Your task to perform on an android device: find which apps use the phone's location Image 0: 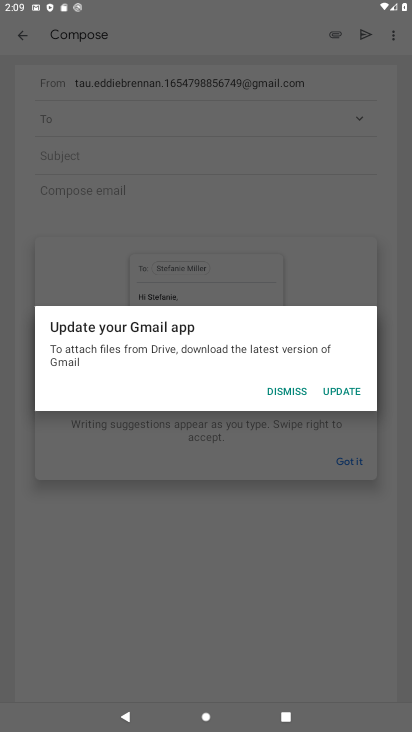
Step 0: press home button
Your task to perform on an android device: find which apps use the phone's location Image 1: 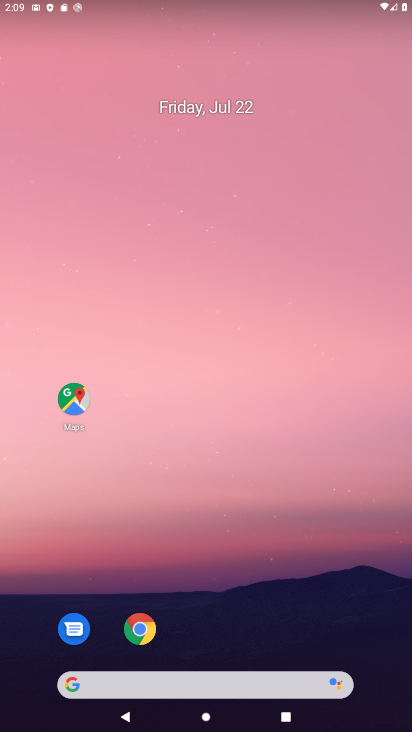
Step 1: drag from (190, 658) to (222, 267)
Your task to perform on an android device: find which apps use the phone's location Image 2: 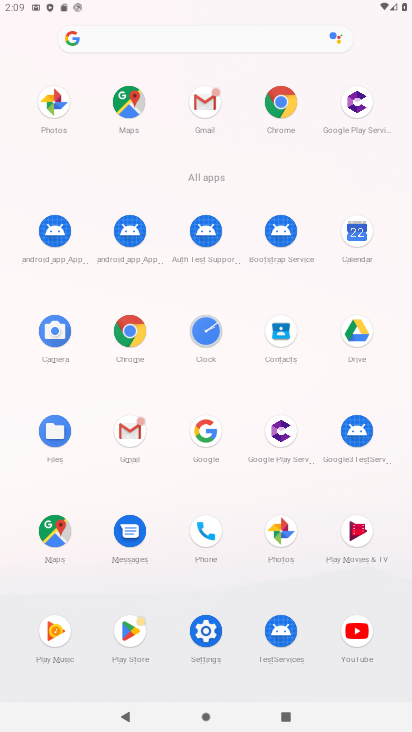
Step 2: click (204, 639)
Your task to perform on an android device: find which apps use the phone's location Image 3: 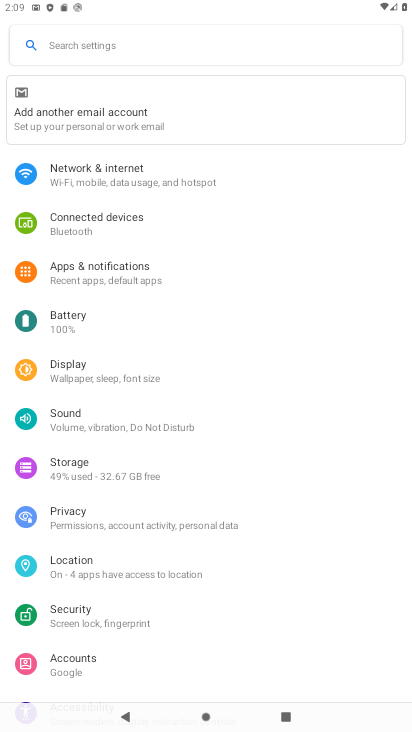
Step 3: click (78, 571)
Your task to perform on an android device: find which apps use the phone's location Image 4: 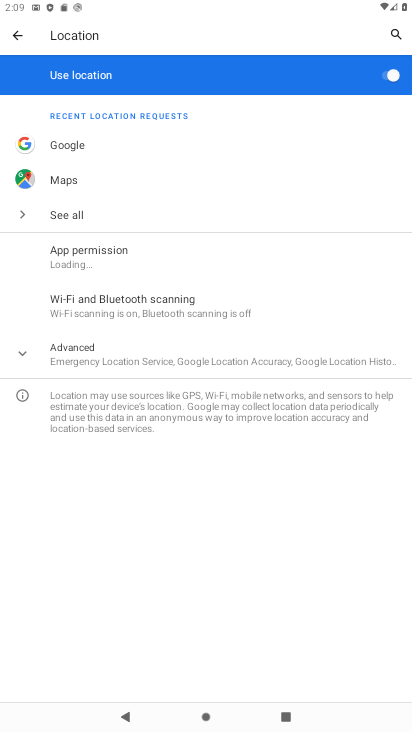
Step 4: task complete